Your task to perform on an android device: set the stopwatch Image 0: 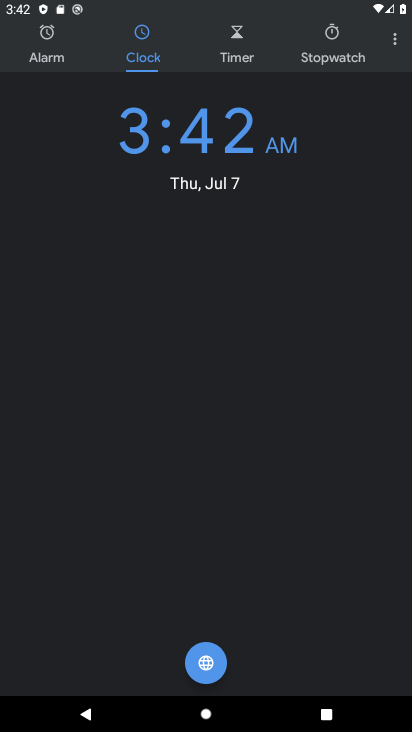
Step 0: press home button
Your task to perform on an android device: set the stopwatch Image 1: 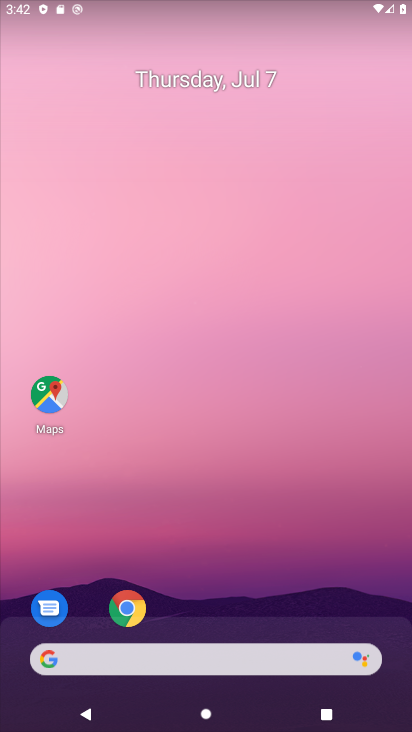
Step 1: drag from (268, 606) to (220, 275)
Your task to perform on an android device: set the stopwatch Image 2: 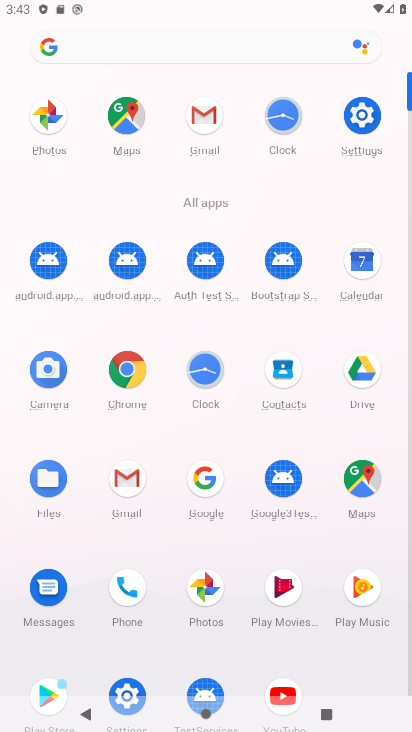
Step 2: click (206, 368)
Your task to perform on an android device: set the stopwatch Image 3: 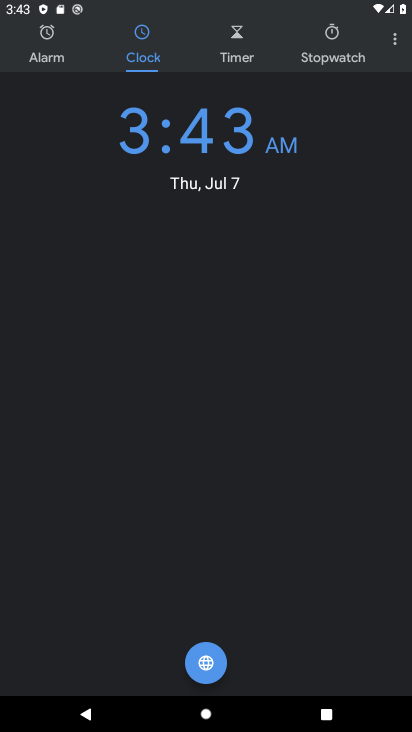
Step 3: click (337, 55)
Your task to perform on an android device: set the stopwatch Image 4: 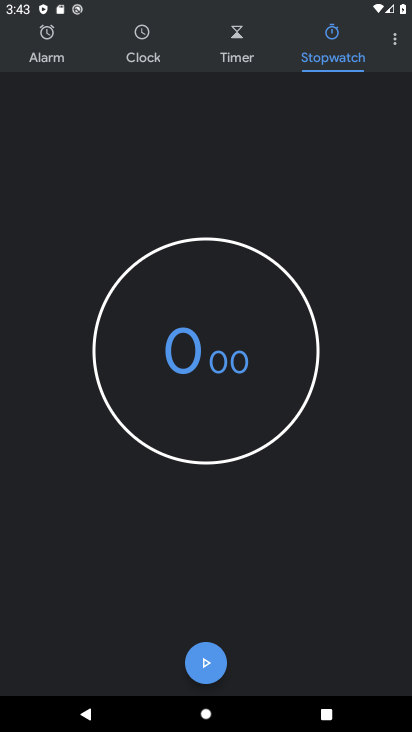
Step 4: task complete